Your task to perform on an android device: check google app version Image 0: 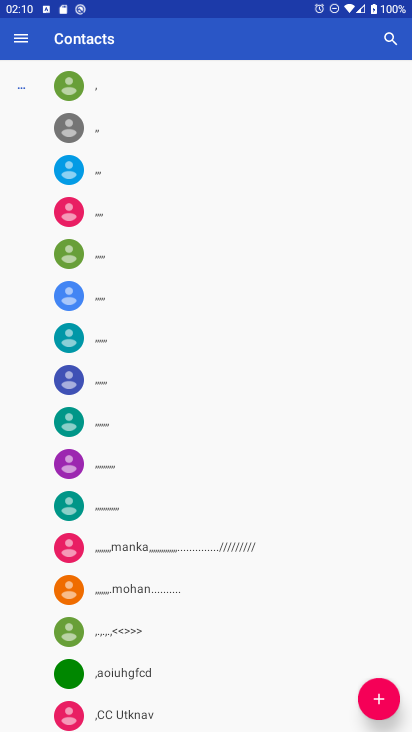
Step 0: press home button
Your task to perform on an android device: check google app version Image 1: 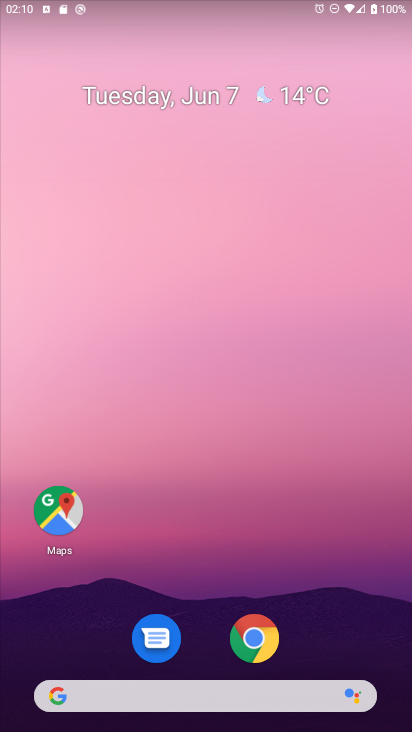
Step 1: drag from (142, 717) to (220, 189)
Your task to perform on an android device: check google app version Image 2: 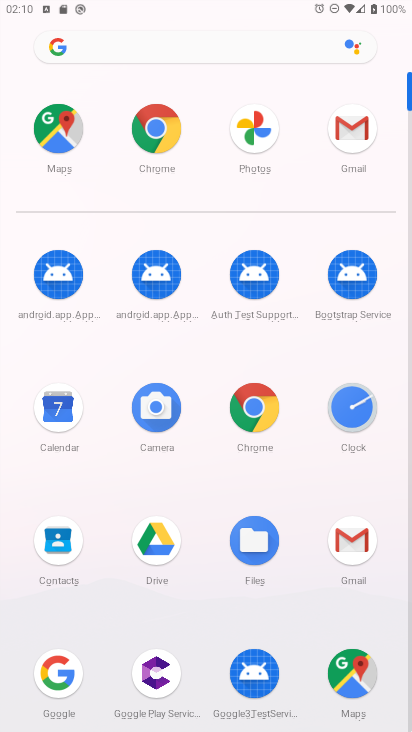
Step 2: click (160, 130)
Your task to perform on an android device: check google app version Image 3: 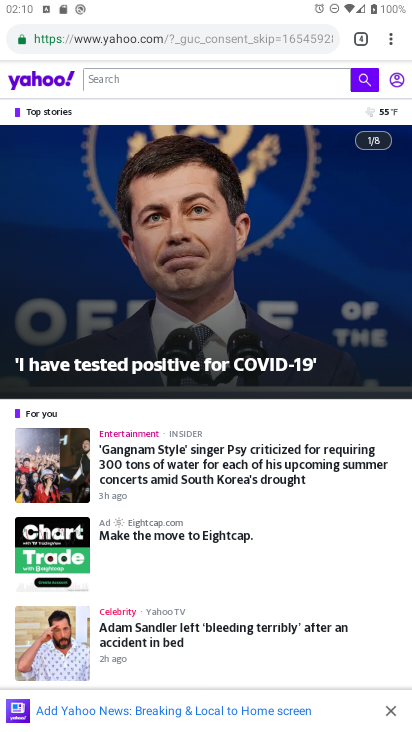
Step 3: click (388, 39)
Your task to perform on an android device: check google app version Image 4: 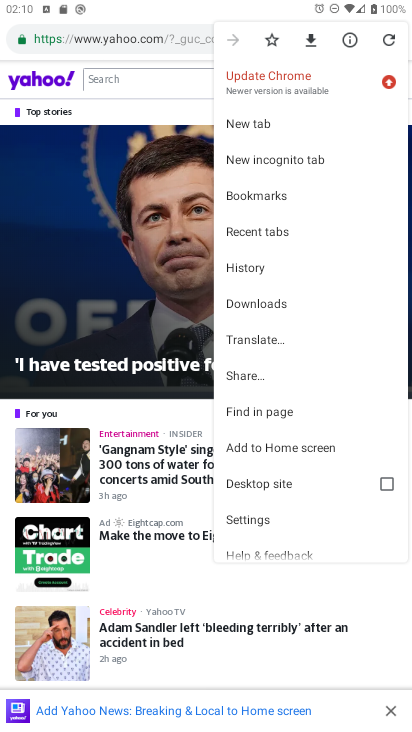
Step 4: click (262, 518)
Your task to perform on an android device: check google app version Image 5: 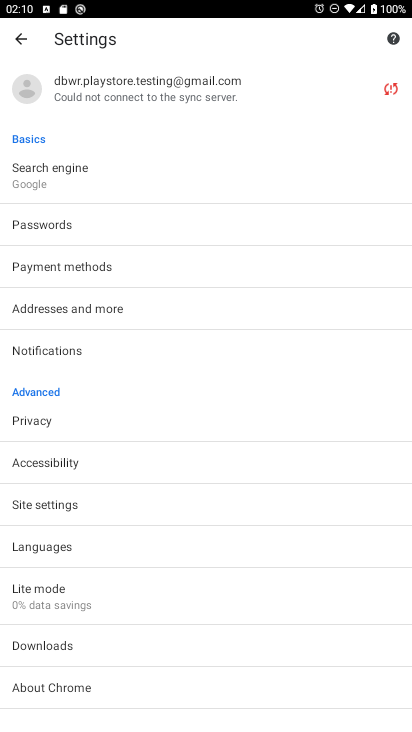
Step 5: click (56, 692)
Your task to perform on an android device: check google app version Image 6: 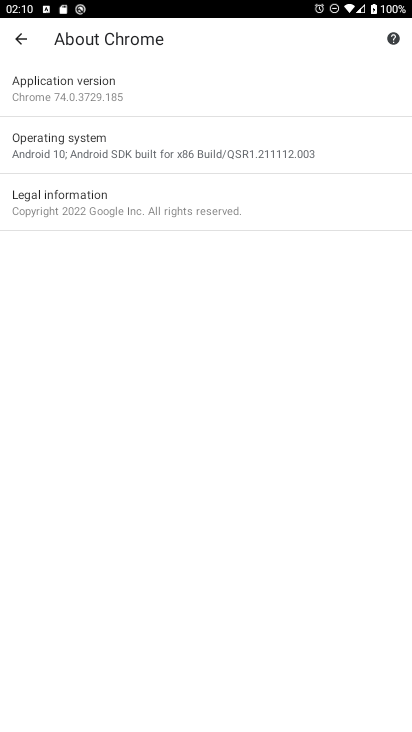
Step 6: click (137, 100)
Your task to perform on an android device: check google app version Image 7: 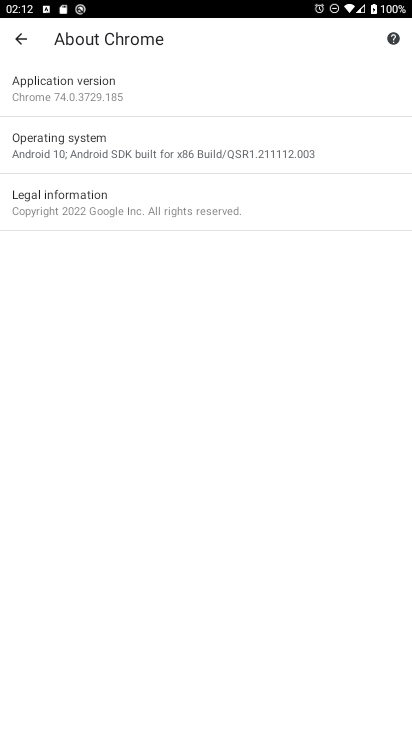
Step 7: task complete